Your task to perform on an android device: change text size in settings app Image 0: 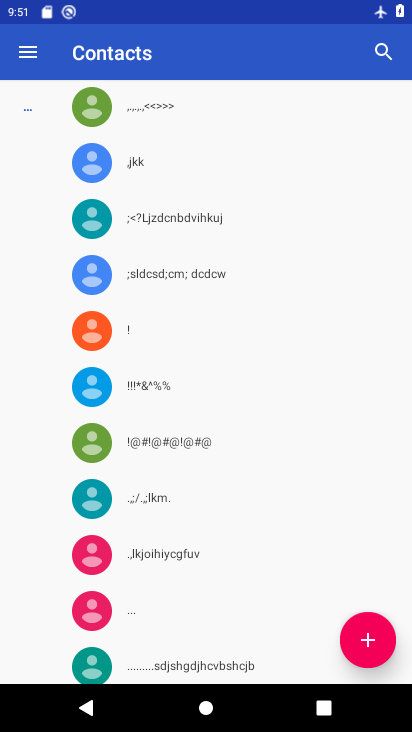
Step 0: press home button
Your task to perform on an android device: change text size in settings app Image 1: 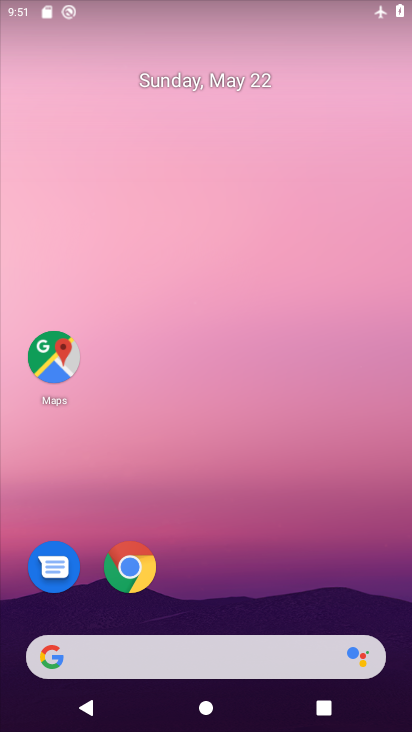
Step 1: drag from (198, 619) to (196, 71)
Your task to perform on an android device: change text size in settings app Image 2: 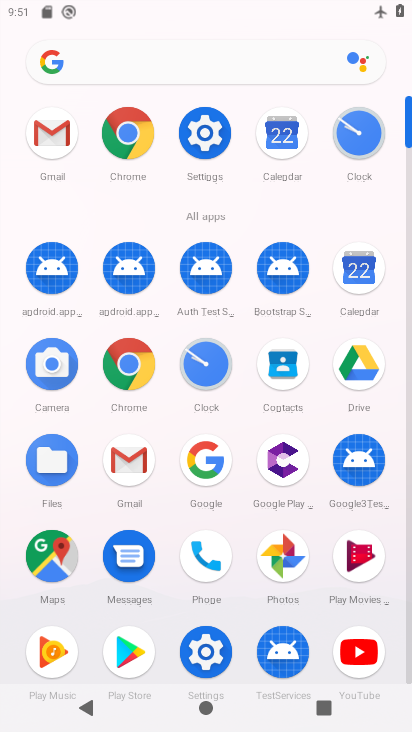
Step 2: click (201, 125)
Your task to perform on an android device: change text size in settings app Image 3: 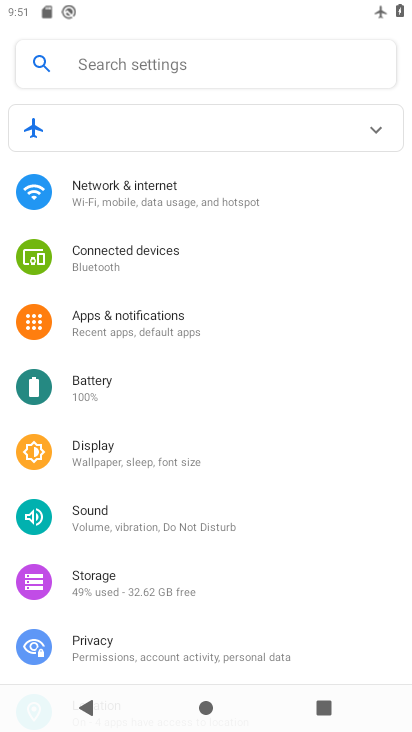
Step 3: click (123, 448)
Your task to perform on an android device: change text size in settings app Image 4: 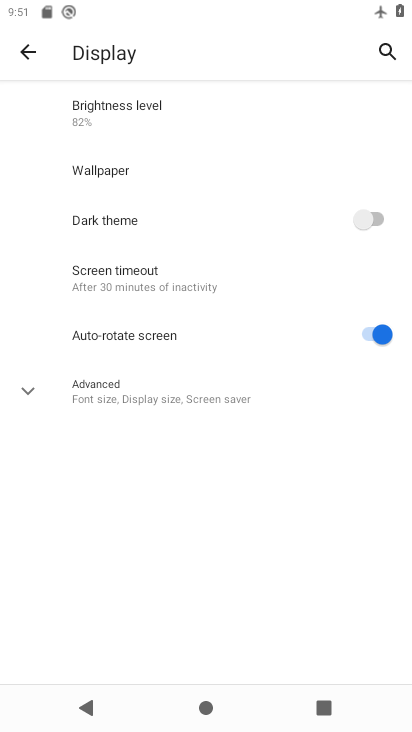
Step 4: click (29, 384)
Your task to perform on an android device: change text size in settings app Image 5: 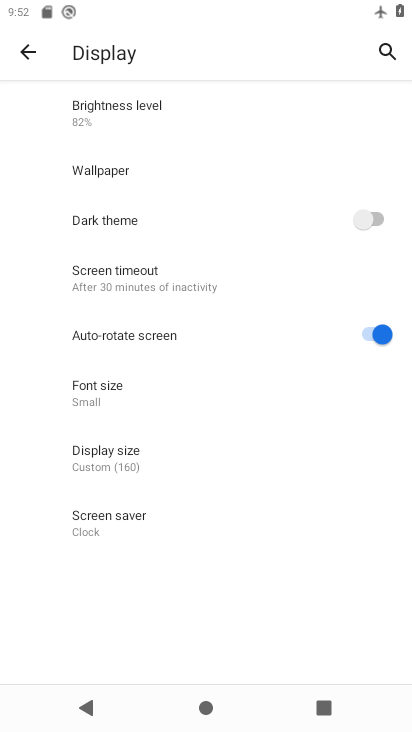
Step 5: click (133, 387)
Your task to perform on an android device: change text size in settings app Image 6: 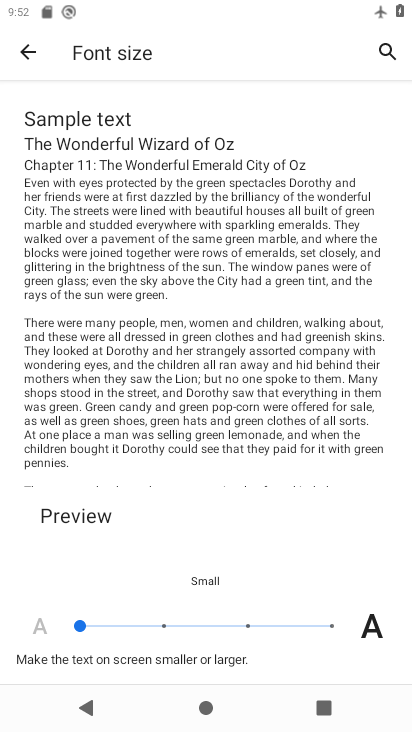
Step 6: task complete